Your task to perform on an android device: Open sound settings Image 0: 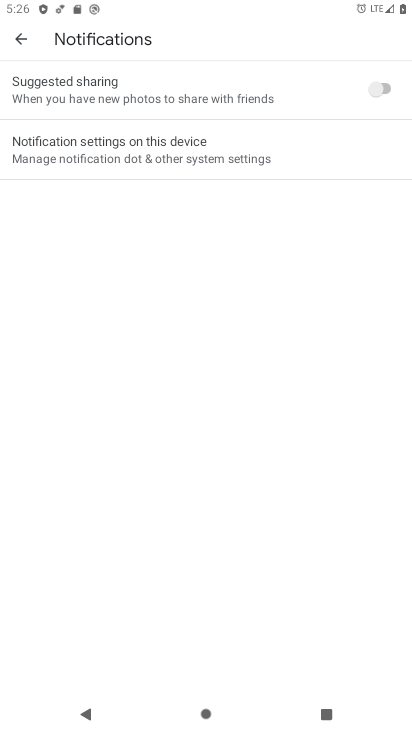
Step 0: press home button
Your task to perform on an android device: Open sound settings Image 1: 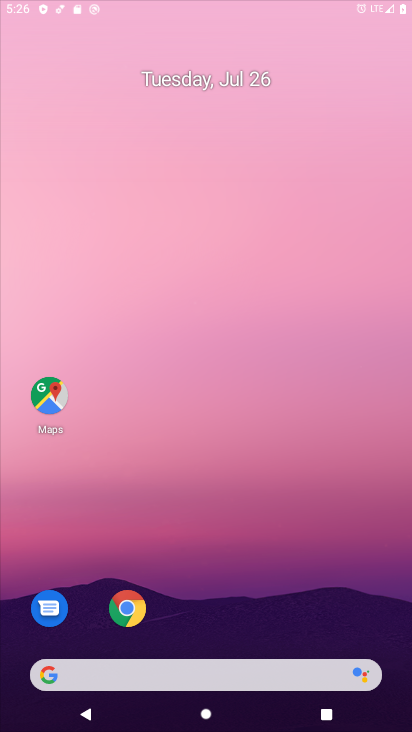
Step 1: drag from (366, 693) to (150, 67)
Your task to perform on an android device: Open sound settings Image 2: 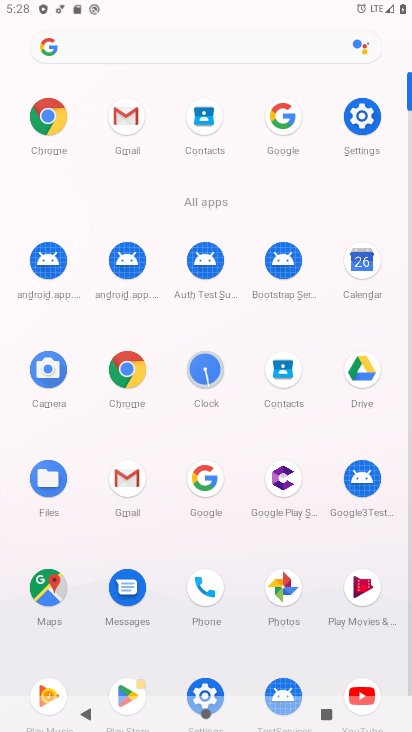
Step 2: click (206, 676)
Your task to perform on an android device: Open sound settings Image 3: 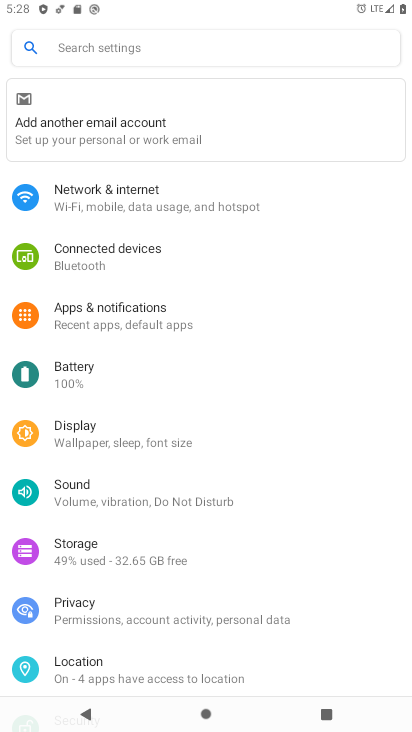
Step 3: click (78, 502)
Your task to perform on an android device: Open sound settings Image 4: 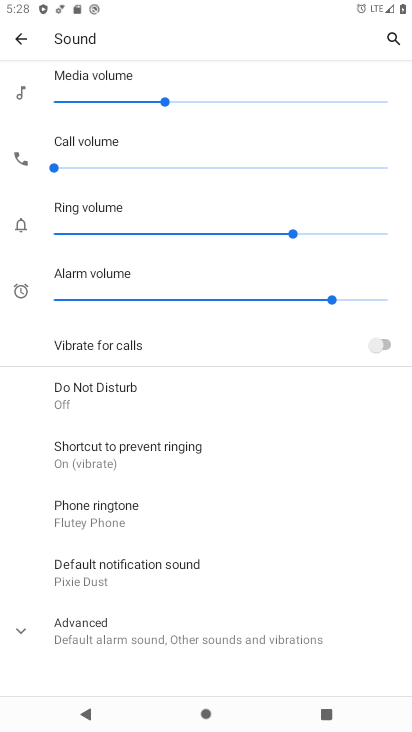
Step 4: task complete